Your task to perform on an android device: turn off translation in the chrome app Image 0: 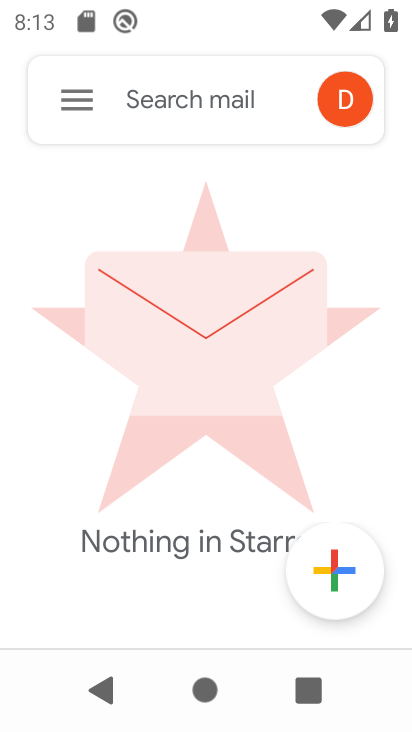
Step 0: press home button
Your task to perform on an android device: turn off translation in the chrome app Image 1: 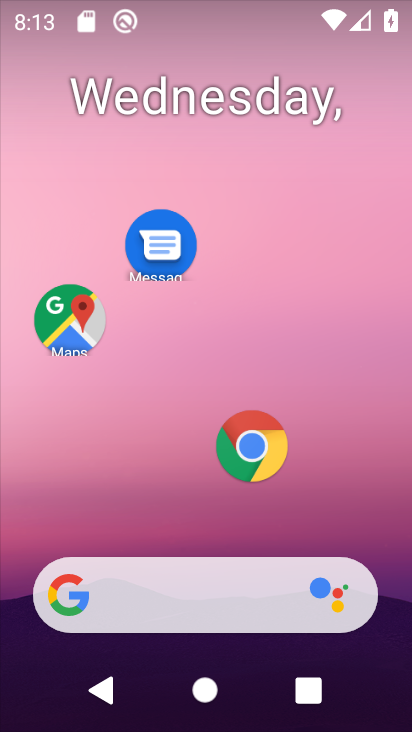
Step 1: click (253, 448)
Your task to perform on an android device: turn off translation in the chrome app Image 2: 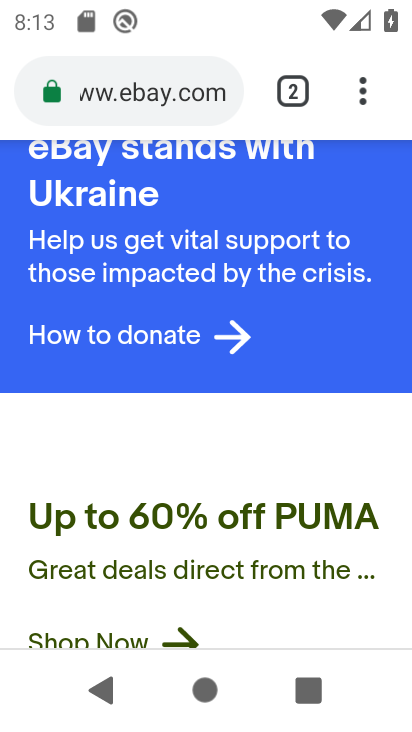
Step 2: click (368, 87)
Your task to perform on an android device: turn off translation in the chrome app Image 3: 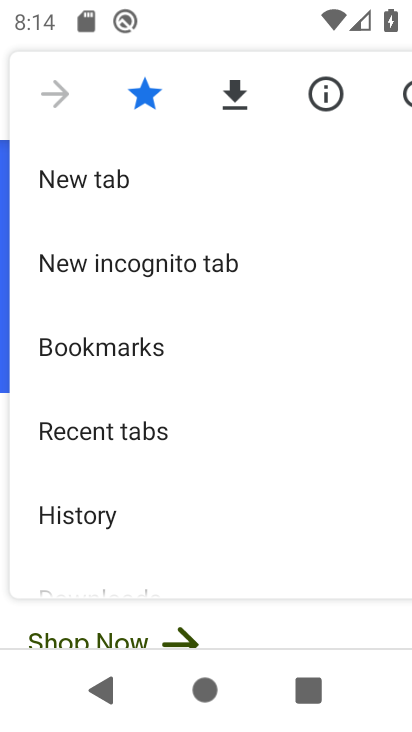
Step 3: drag from (172, 518) to (185, 32)
Your task to perform on an android device: turn off translation in the chrome app Image 4: 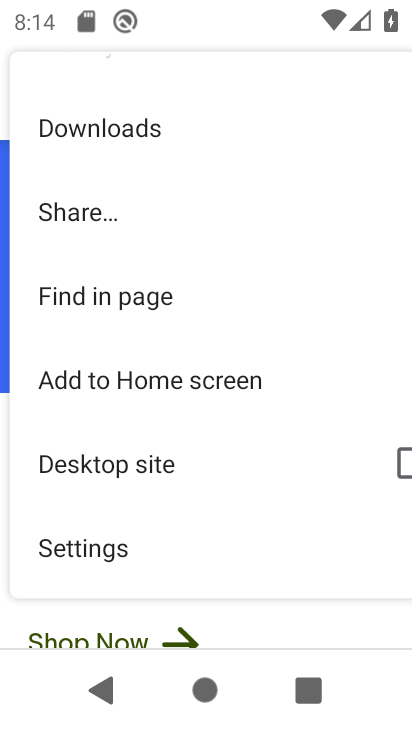
Step 4: click (128, 548)
Your task to perform on an android device: turn off translation in the chrome app Image 5: 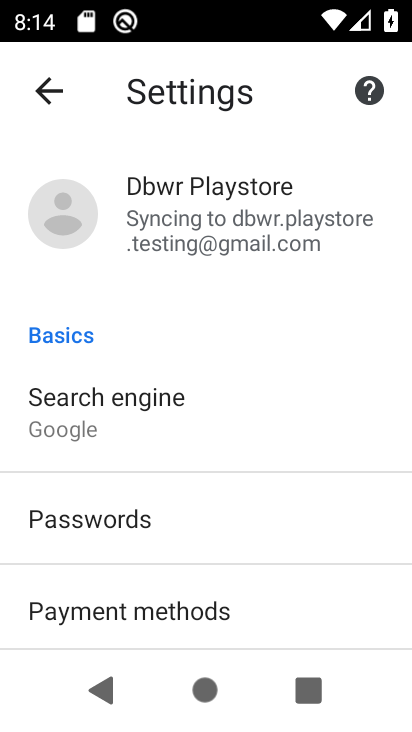
Step 5: drag from (250, 609) to (282, 56)
Your task to perform on an android device: turn off translation in the chrome app Image 6: 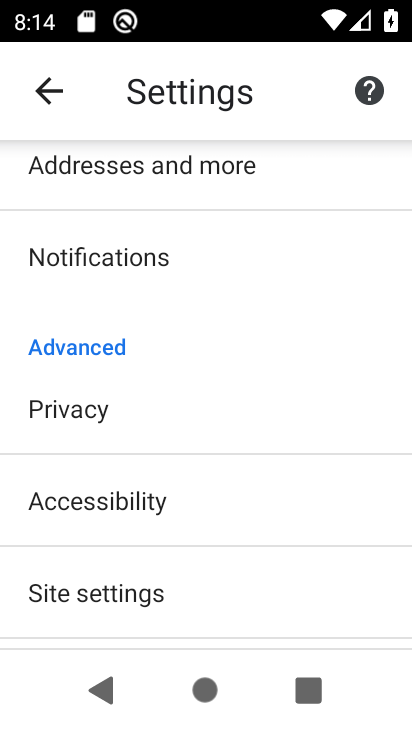
Step 6: drag from (182, 584) to (182, 203)
Your task to perform on an android device: turn off translation in the chrome app Image 7: 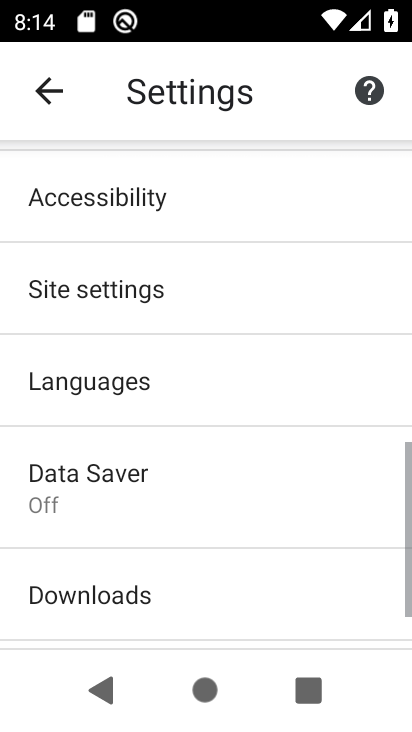
Step 7: click (187, 137)
Your task to perform on an android device: turn off translation in the chrome app Image 8: 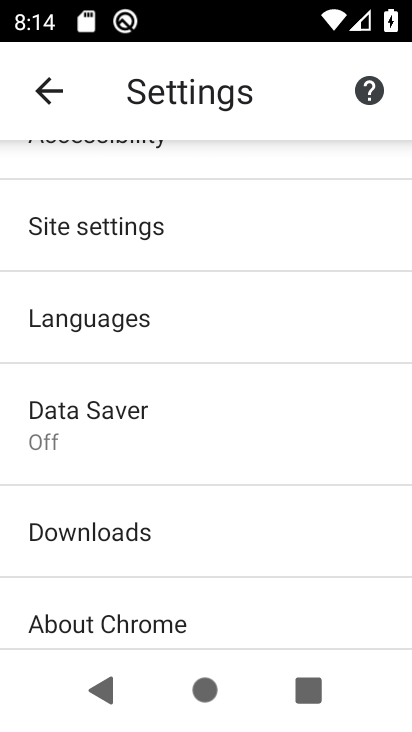
Step 8: click (154, 317)
Your task to perform on an android device: turn off translation in the chrome app Image 9: 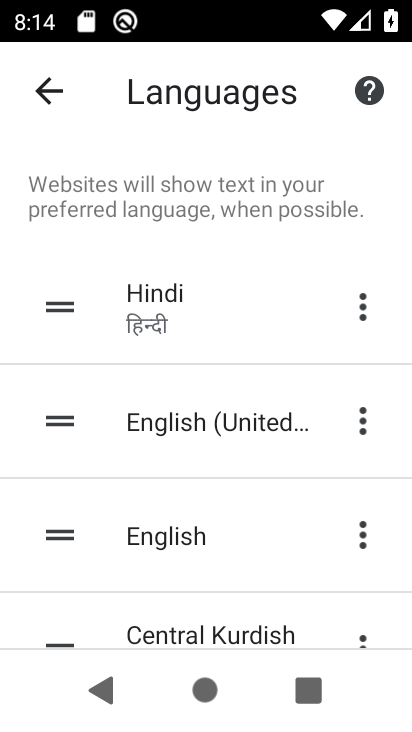
Step 9: drag from (190, 553) to (201, 201)
Your task to perform on an android device: turn off translation in the chrome app Image 10: 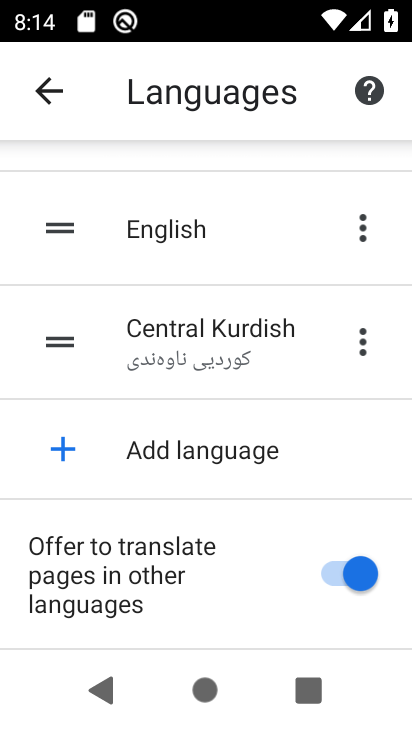
Step 10: click (345, 571)
Your task to perform on an android device: turn off translation in the chrome app Image 11: 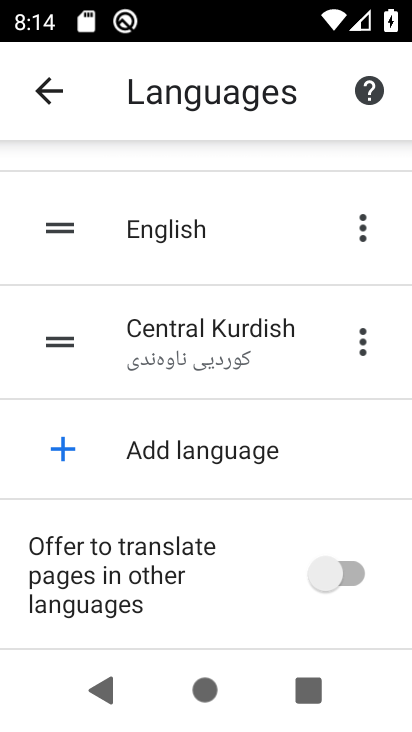
Step 11: task complete